Your task to perform on an android device: See recent photos Image 0: 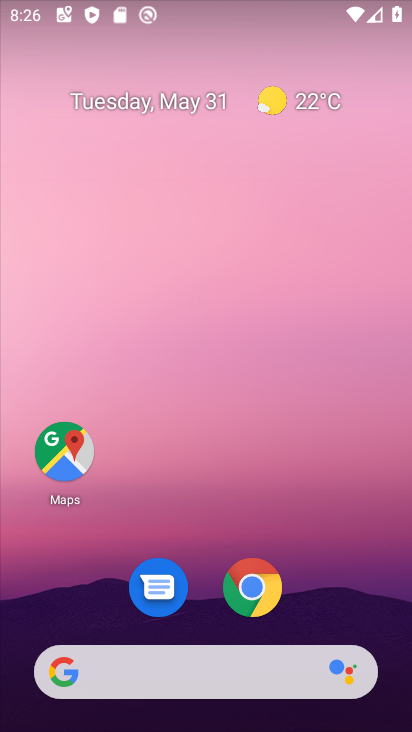
Step 0: drag from (202, 612) to (288, 17)
Your task to perform on an android device: See recent photos Image 1: 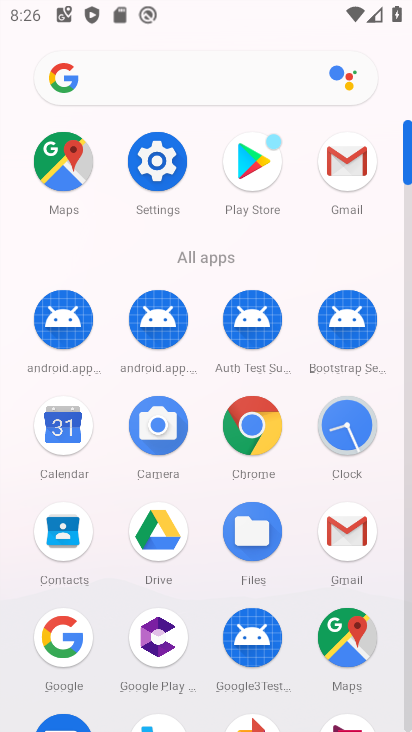
Step 1: drag from (218, 588) to (273, 121)
Your task to perform on an android device: See recent photos Image 2: 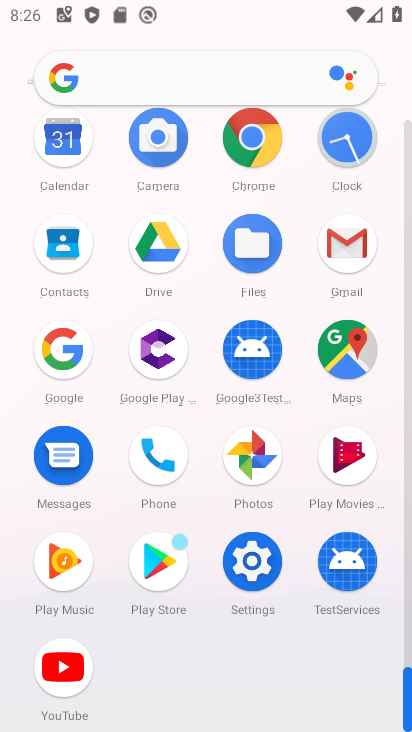
Step 2: click (250, 441)
Your task to perform on an android device: See recent photos Image 3: 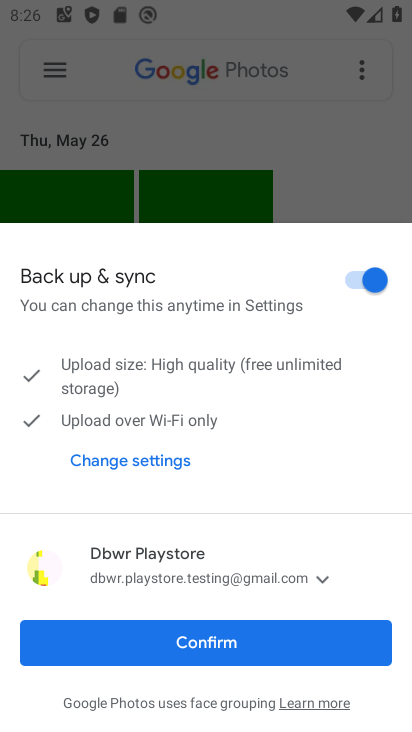
Step 3: task complete